Your task to perform on an android device: Set an alarm for 1pm Image 0: 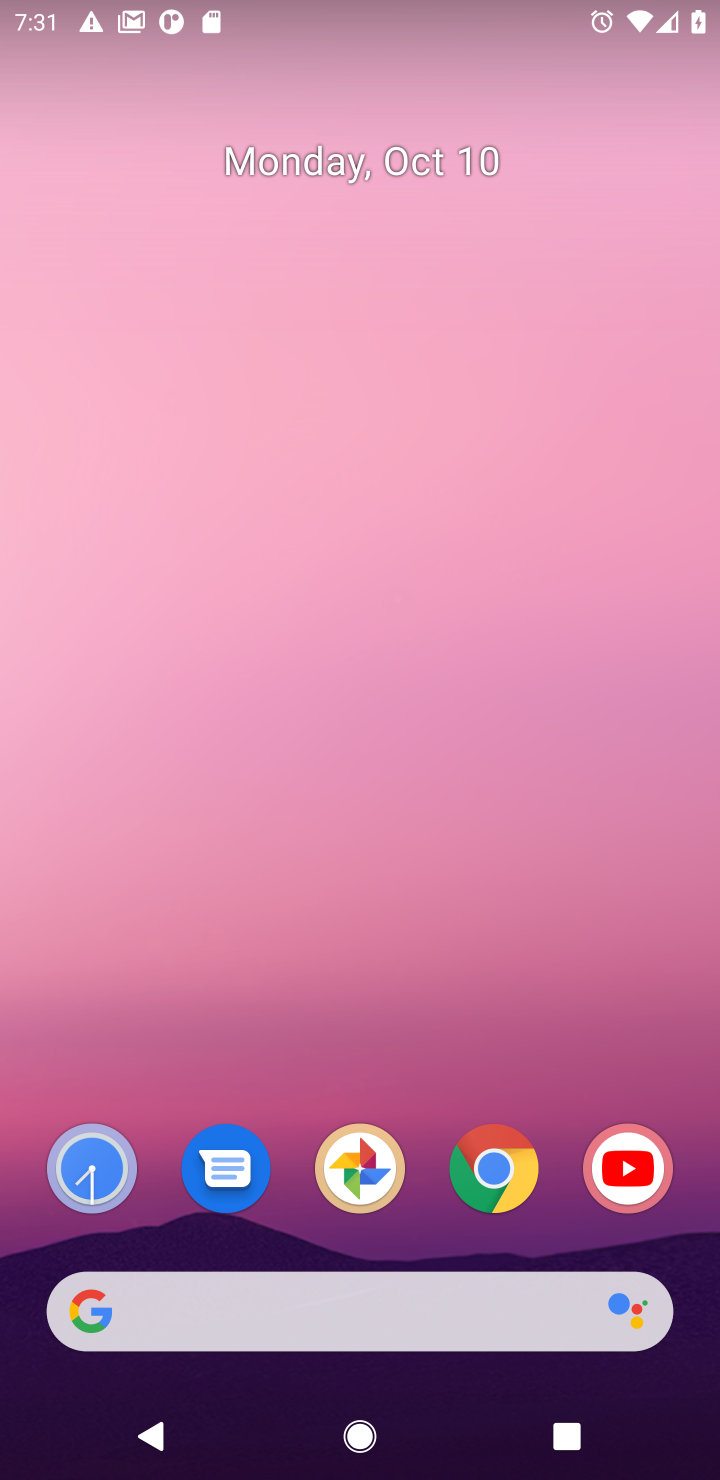
Step 0: click (102, 1169)
Your task to perform on an android device: Set an alarm for 1pm Image 1: 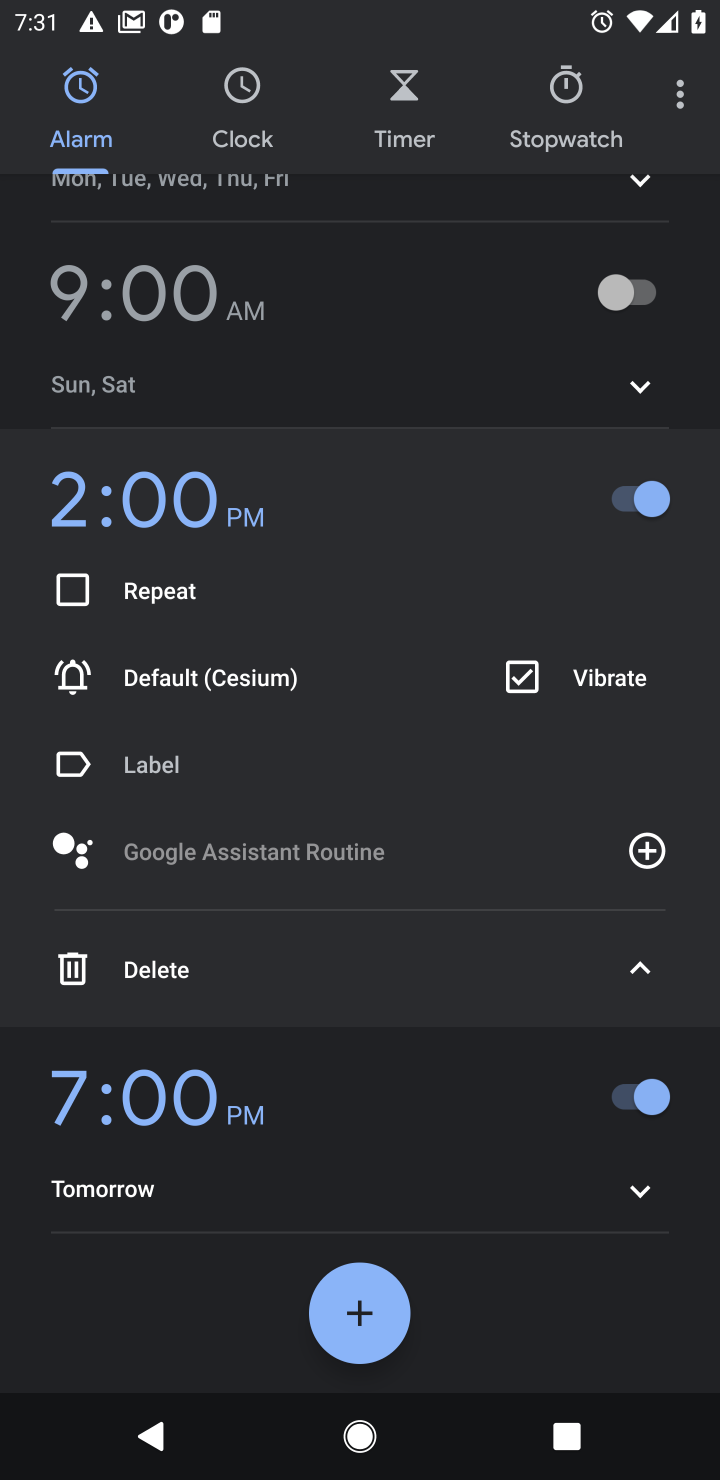
Step 1: click (332, 1311)
Your task to perform on an android device: Set an alarm for 1pm Image 2: 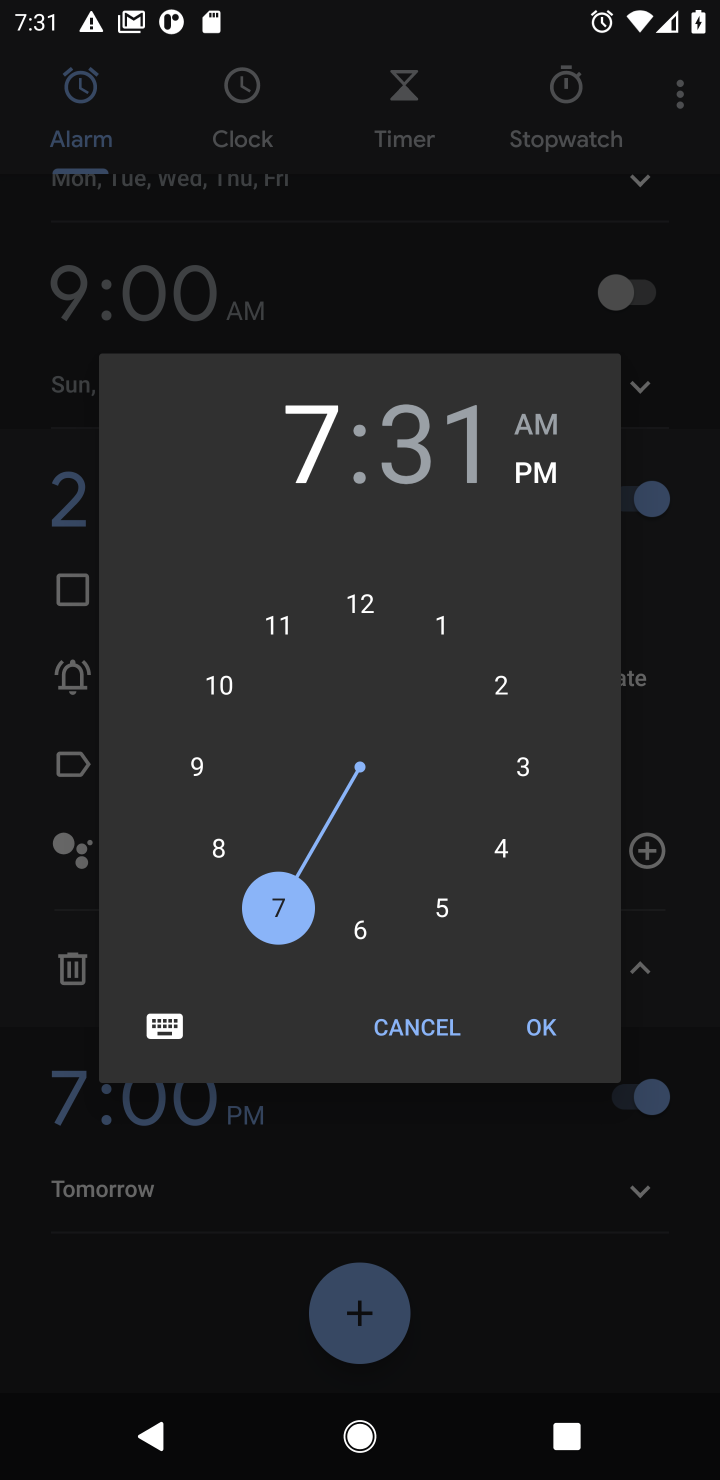
Step 2: click (444, 623)
Your task to perform on an android device: Set an alarm for 1pm Image 3: 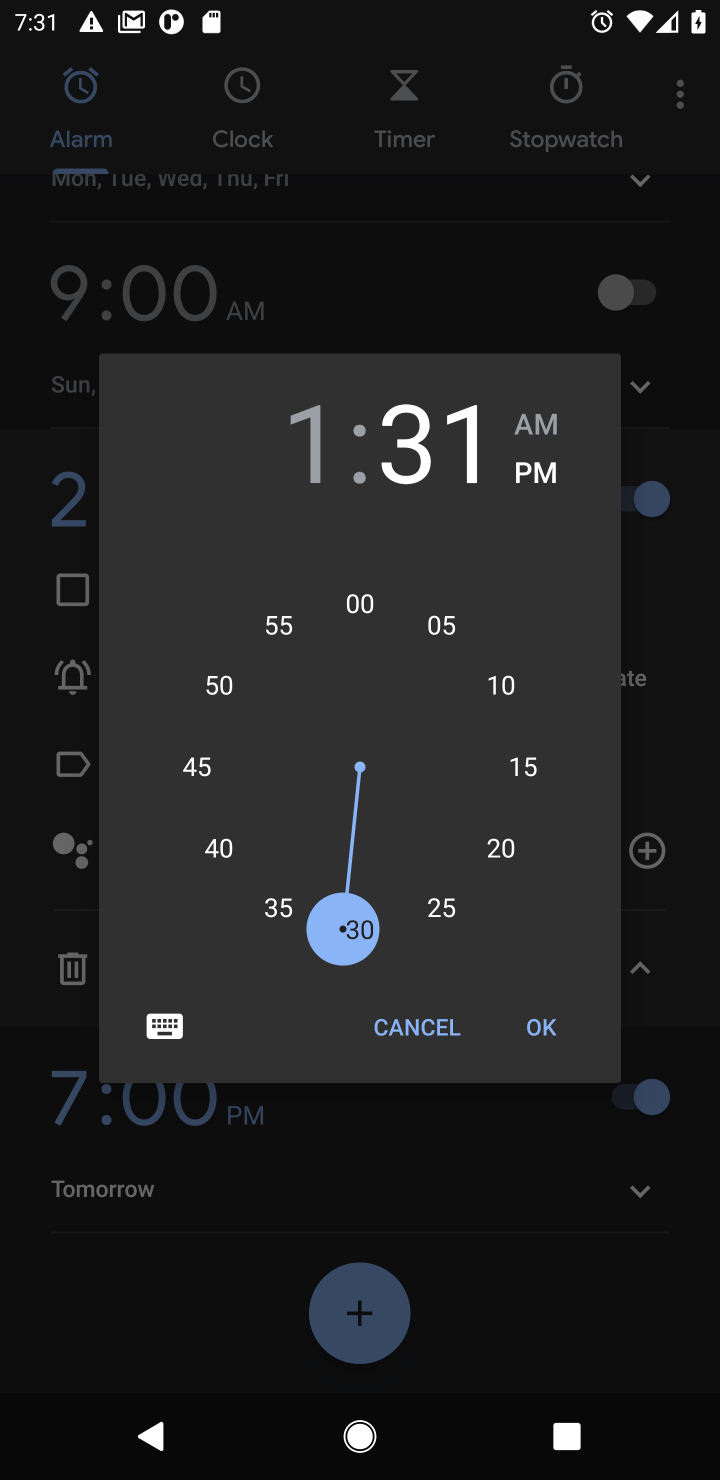
Step 3: click (368, 605)
Your task to perform on an android device: Set an alarm for 1pm Image 4: 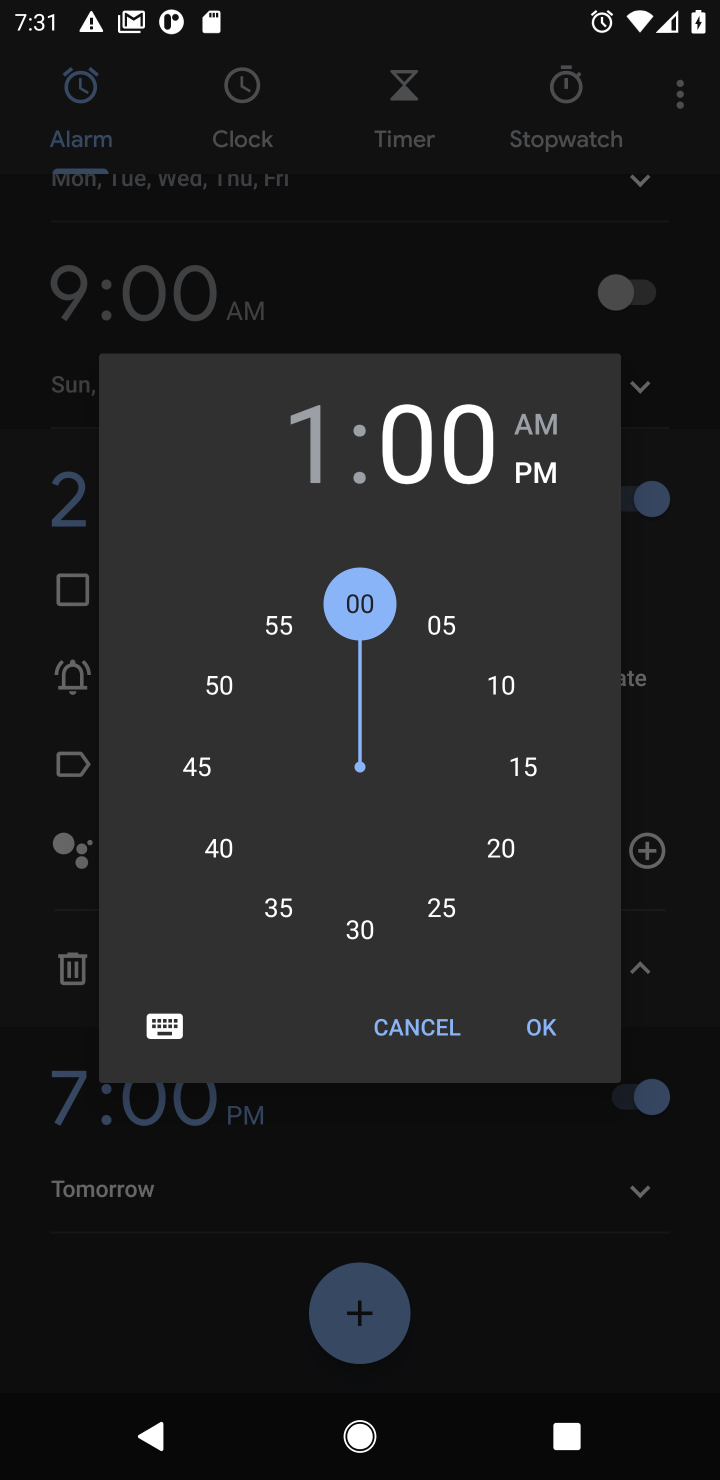
Step 4: click (557, 478)
Your task to perform on an android device: Set an alarm for 1pm Image 5: 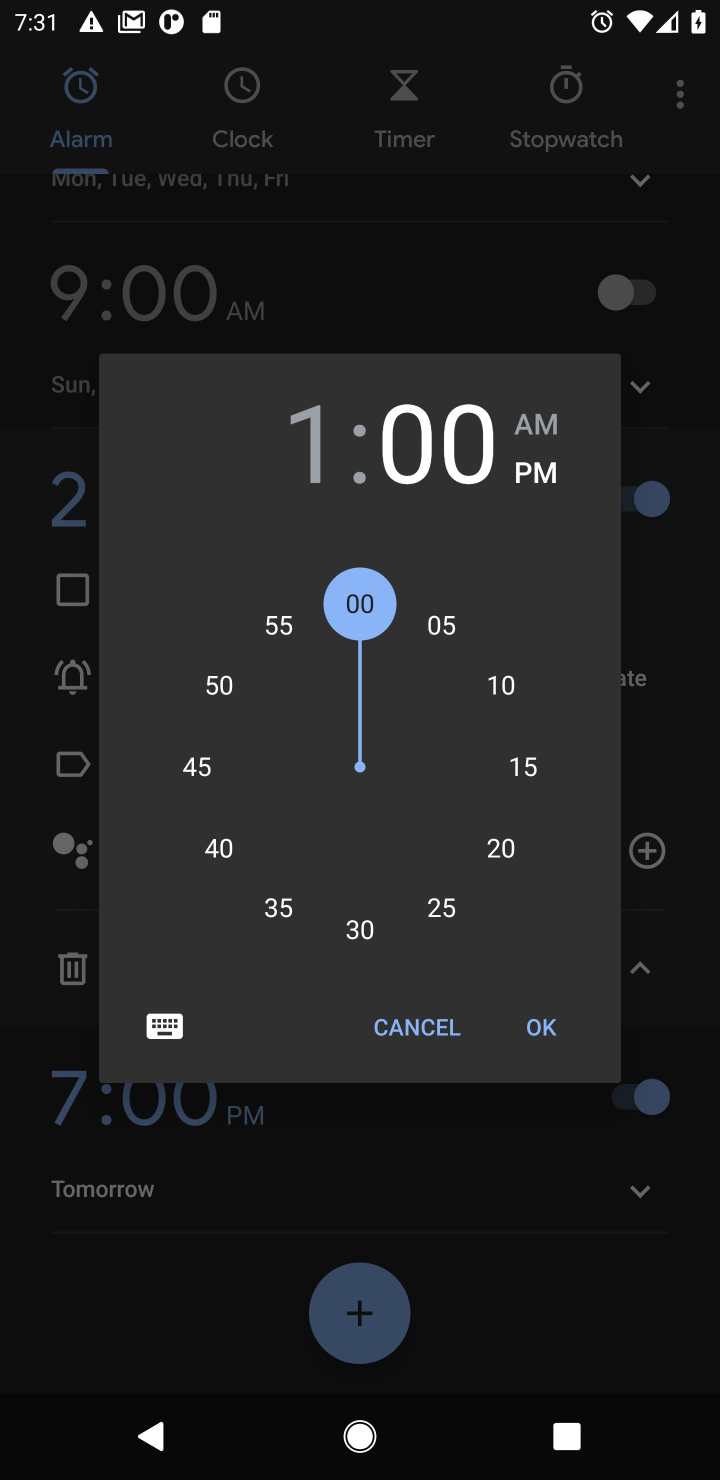
Step 5: click (549, 1040)
Your task to perform on an android device: Set an alarm for 1pm Image 6: 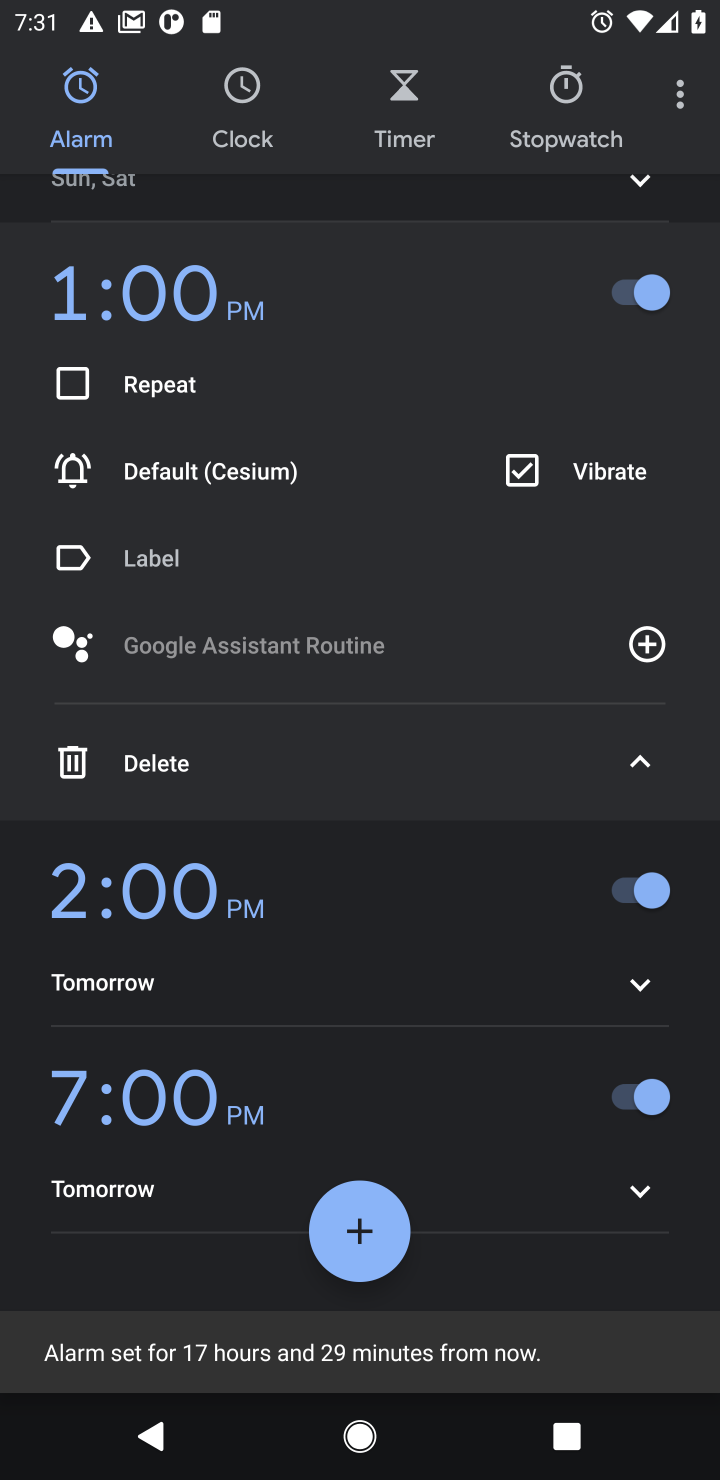
Step 6: task complete